Your task to perform on an android device: Open my contact list Image 0: 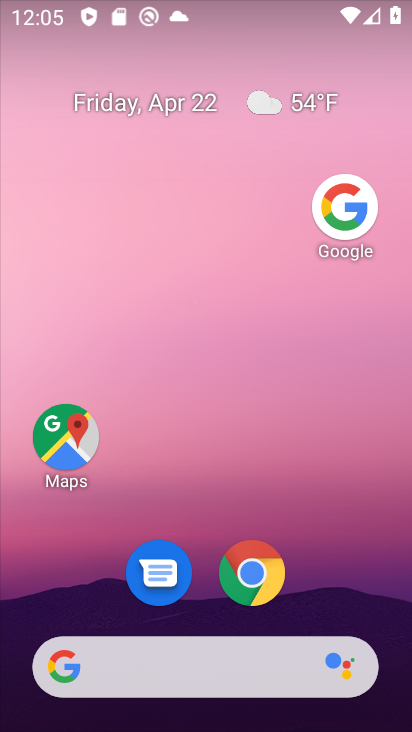
Step 0: drag from (160, 672) to (195, 181)
Your task to perform on an android device: Open my contact list Image 1: 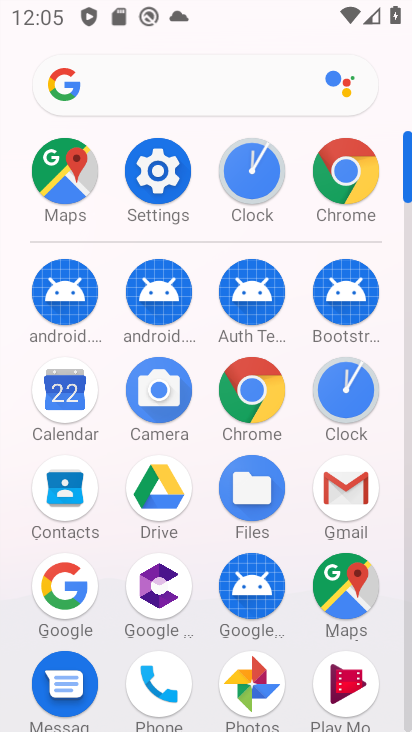
Step 1: click (74, 498)
Your task to perform on an android device: Open my contact list Image 2: 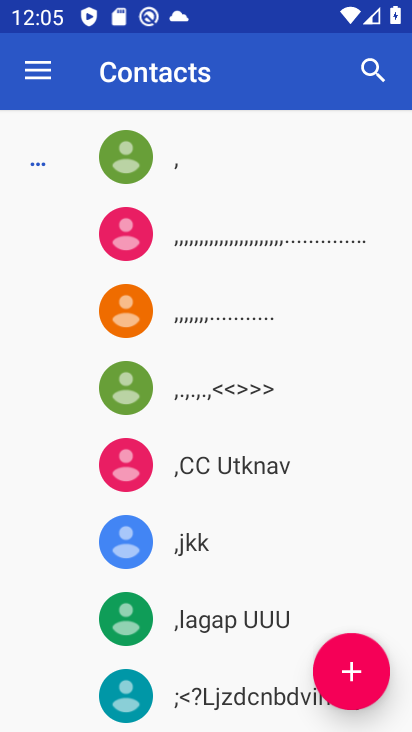
Step 2: task complete